Your task to perform on an android device: What's the weather like in Los Angeles? Image 0: 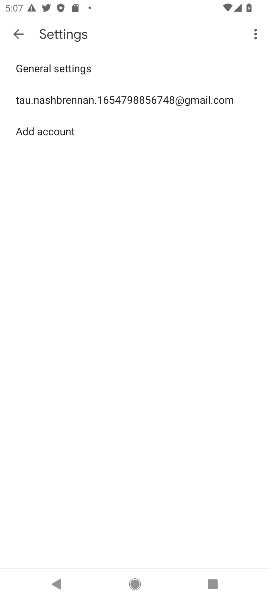
Step 0: click (127, 587)
Your task to perform on an android device: What's the weather like in Los Angeles? Image 1: 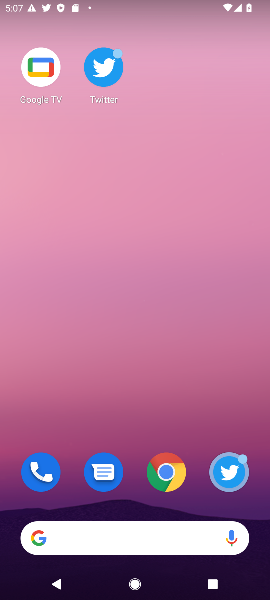
Step 1: click (170, 476)
Your task to perform on an android device: What's the weather like in Los Angeles? Image 2: 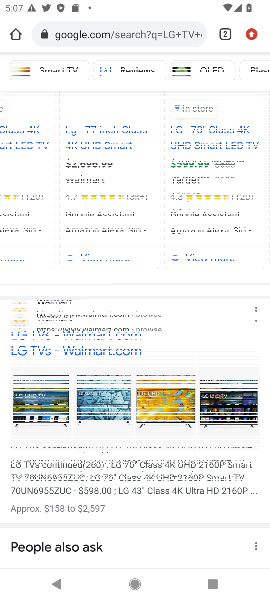
Step 2: click (165, 31)
Your task to perform on an android device: What's the weather like in Los Angeles? Image 3: 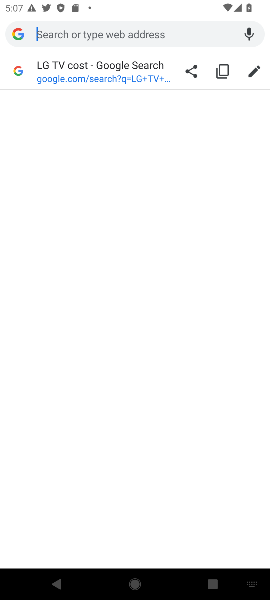
Step 3: type "weather like in Los Angeles"
Your task to perform on an android device: What's the weather like in Los Angeles? Image 4: 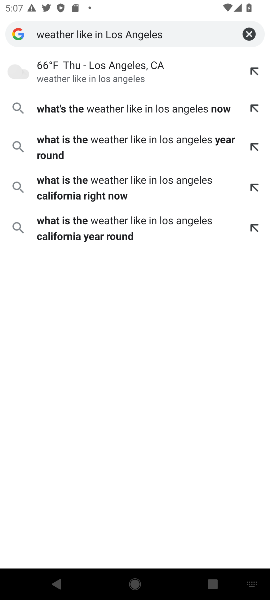
Step 4: press enter
Your task to perform on an android device: What's the weather like in Los Angeles? Image 5: 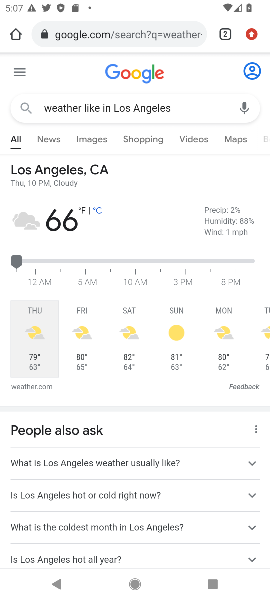
Step 5: task complete